Your task to perform on an android device: change the clock display to digital Image 0: 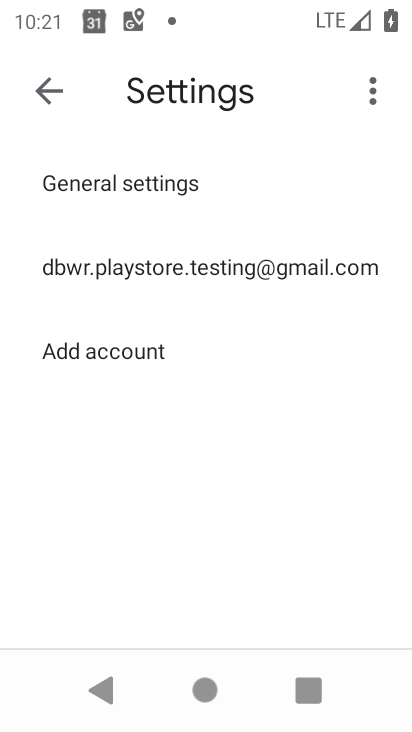
Step 0: press home button
Your task to perform on an android device: change the clock display to digital Image 1: 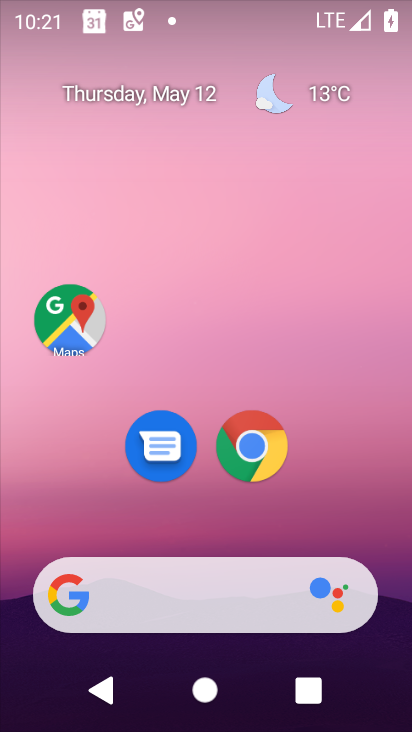
Step 1: drag from (273, 543) to (280, 13)
Your task to perform on an android device: change the clock display to digital Image 2: 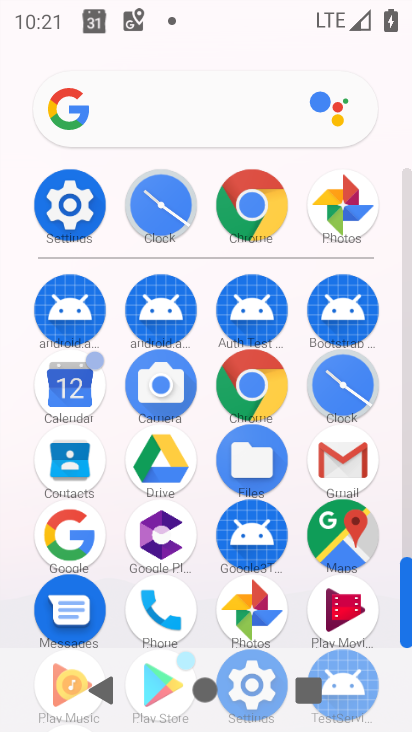
Step 2: click (334, 391)
Your task to perform on an android device: change the clock display to digital Image 3: 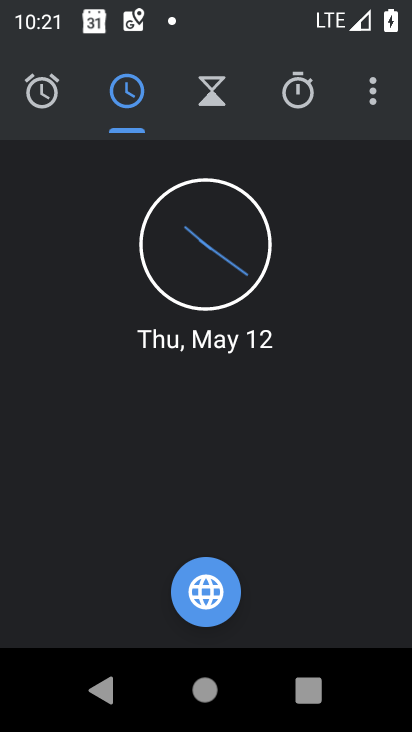
Step 3: click (367, 92)
Your task to perform on an android device: change the clock display to digital Image 4: 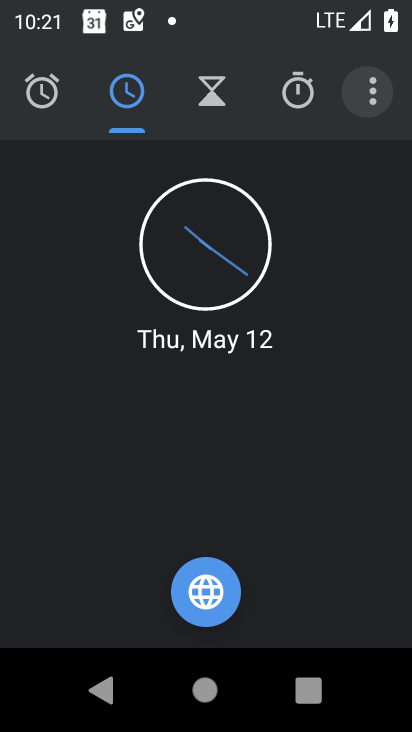
Step 4: drag from (367, 107) to (205, 179)
Your task to perform on an android device: change the clock display to digital Image 5: 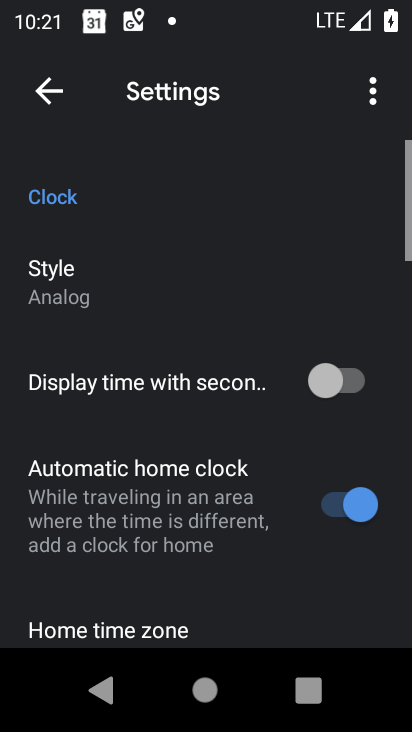
Step 5: click (113, 287)
Your task to perform on an android device: change the clock display to digital Image 6: 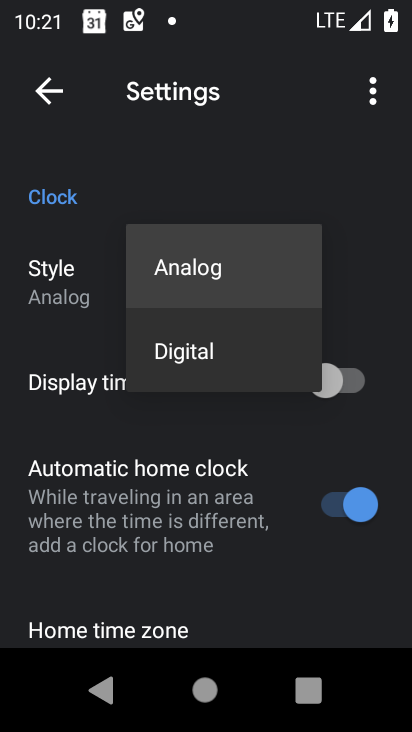
Step 6: click (162, 357)
Your task to perform on an android device: change the clock display to digital Image 7: 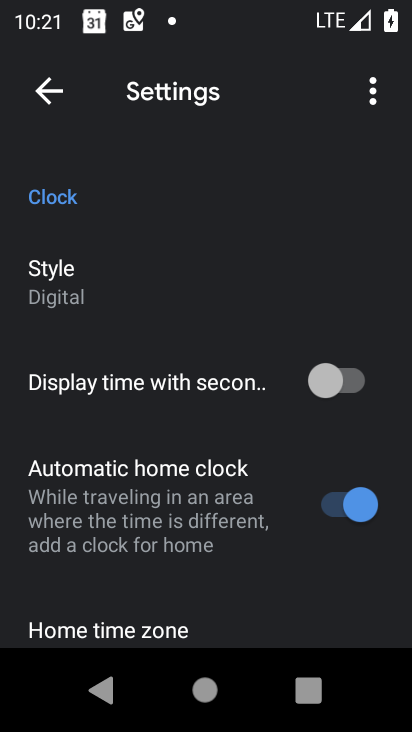
Step 7: task complete